Your task to perform on an android device: Search for sushi restaurants on Maps Image 0: 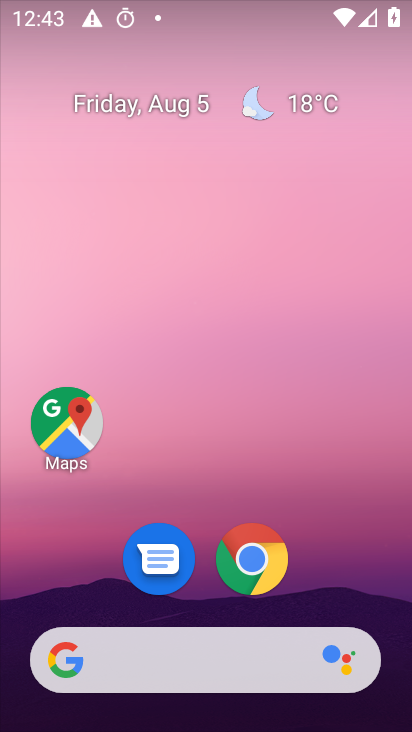
Step 0: click (77, 422)
Your task to perform on an android device: Search for sushi restaurants on Maps Image 1: 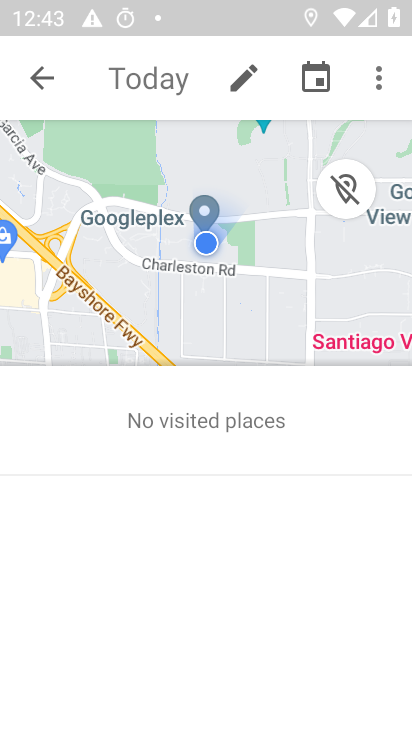
Step 1: click (39, 76)
Your task to perform on an android device: Search for sushi restaurants on Maps Image 2: 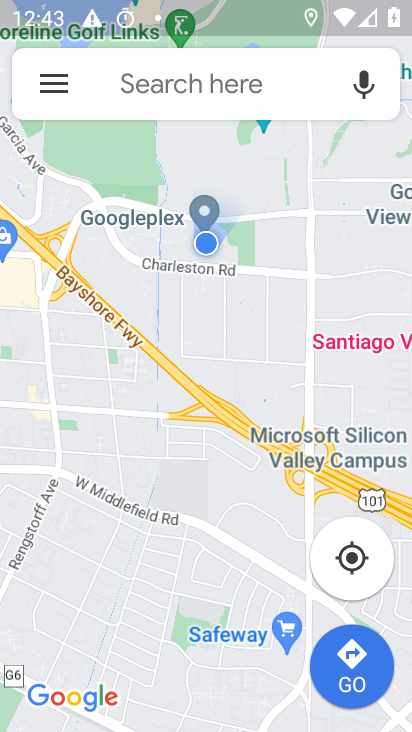
Step 2: click (154, 69)
Your task to perform on an android device: Search for sushi restaurants on Maps Image 3: 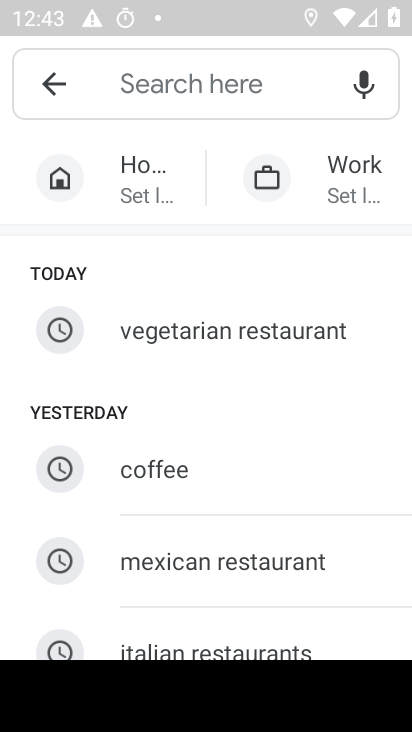
Step 3: type "sushi restaurants"
Your task to perform on an android device: Search for sushi restaurants on Maps Image 4: 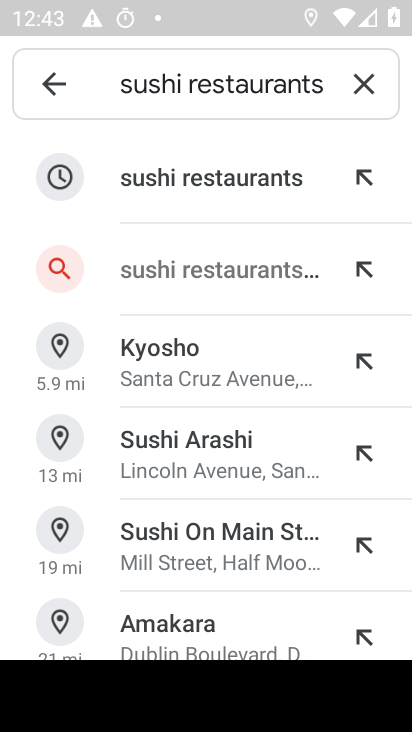
Step 4: click (206, 187)
Your task to perform on an android device: Search for sushi restaurants on Maps Image 5: 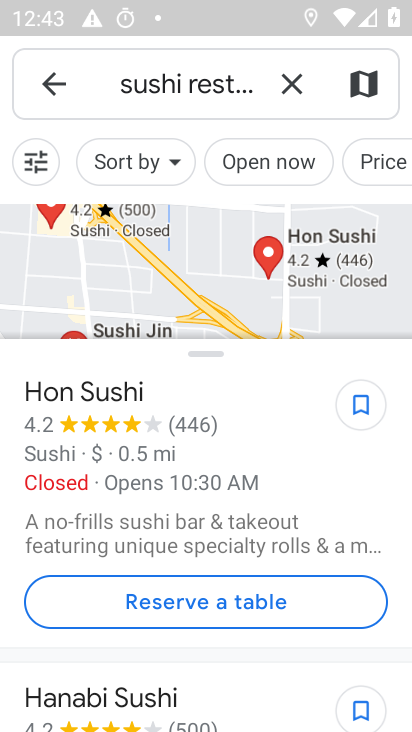
Step 5: task complete